Your task to perform on an android device: Go to settings Image 0: 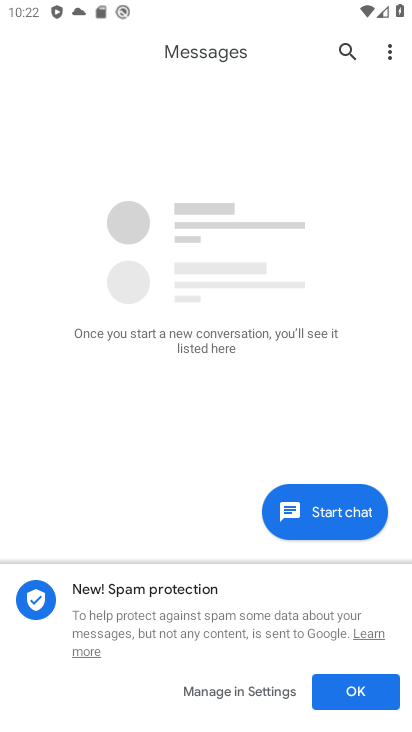
Step 0: press home button
Your task to perform on an android device: Go to settings Image 1: 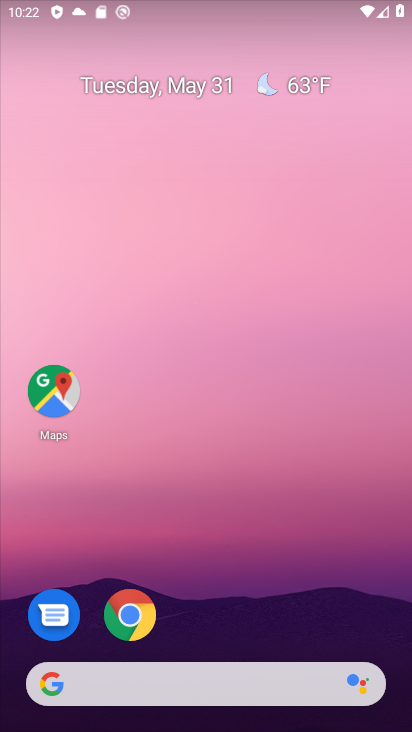
Step 1: drag from (338, 586) to (343, 93)
Your task to perform on an android device: Go to settings Image 2: 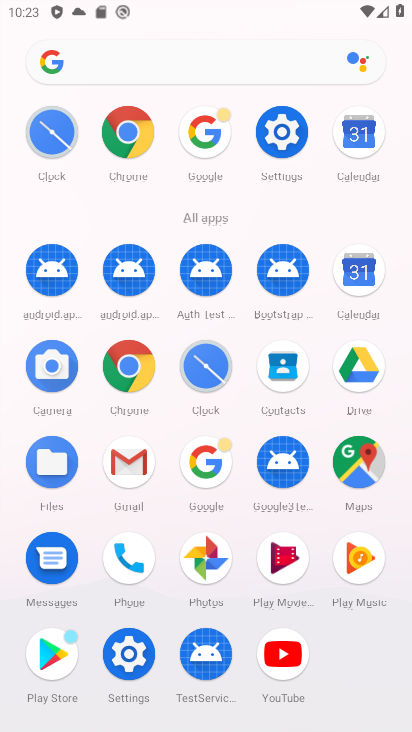
Step 2: click (120, 659)
Your task to perform on an android device: Go to settings Image 3: 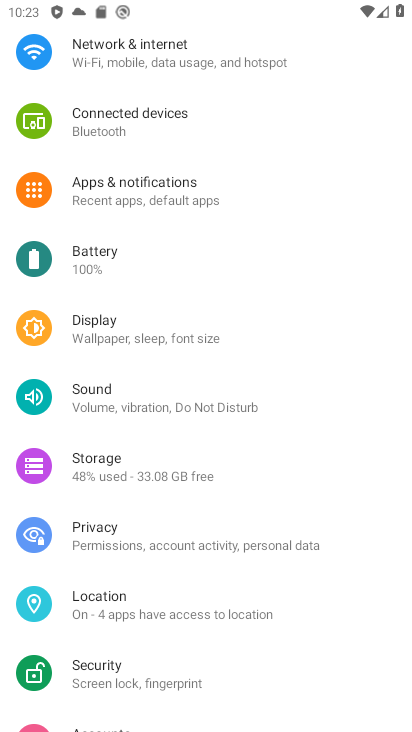
Step 3: task complete